Your task to perform on an android device: What's the weather going to be this weekend? Image 0: 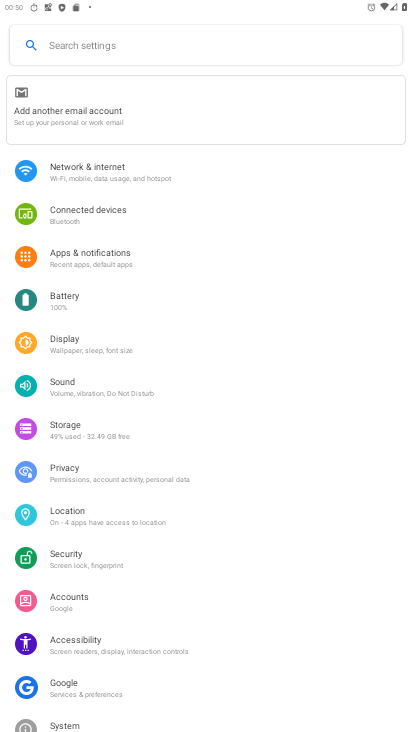
Step 0: drag from (284, 319) to (322, 510)
Your task to perform on an android device: What's the weather going to be this weekend? Image 1: 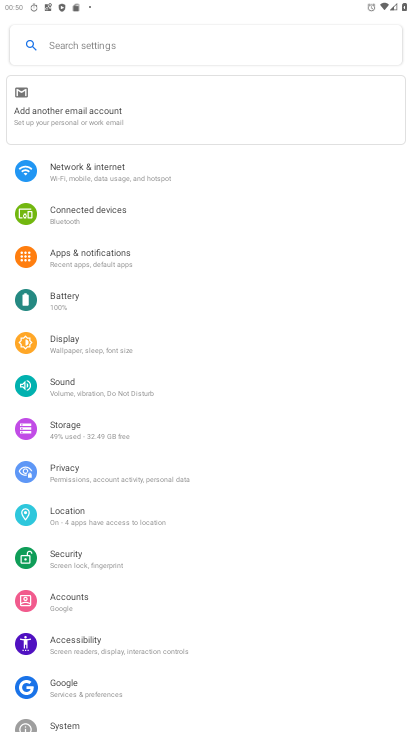
Step 1: press home button
Your task to perform on an android device: What's the weather going to be this weekend? Image 2: 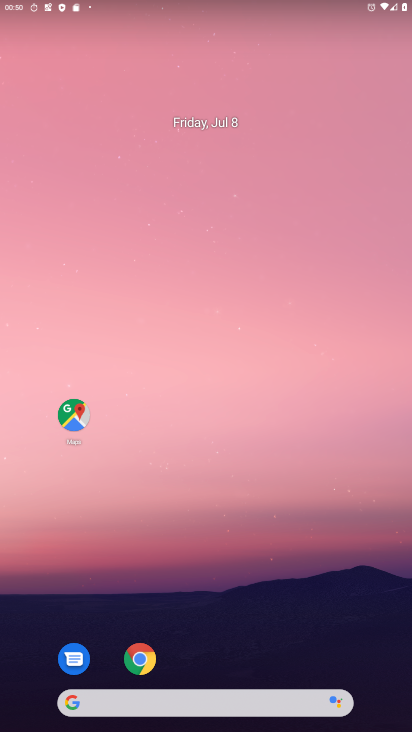
Step 2: click (163, 699)
Your task to perform on an android device: What's the weather going to be this weekend? Image 3: 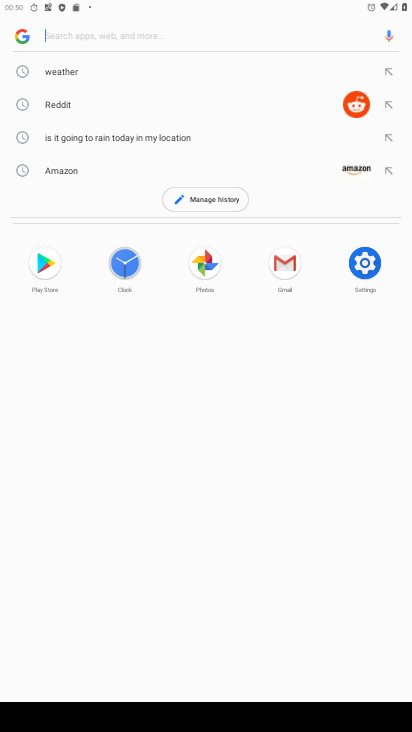
Step 3: click (65, 81)
Your task to perform on an android device: What's the weather going to be this weekend? Image 4: 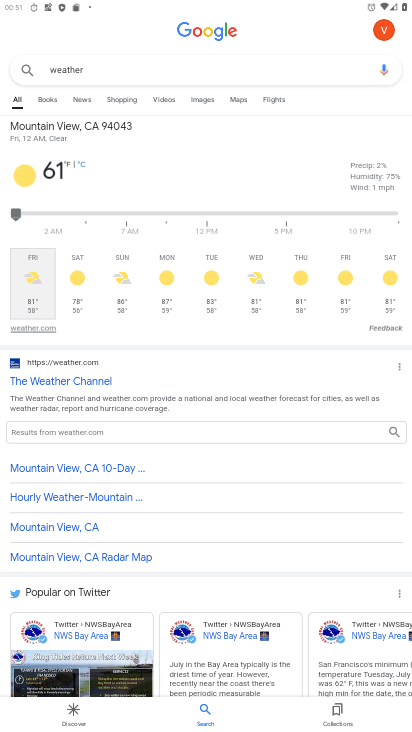
Step 4: click (389, 282)
Your task to perform on an android device: What's the weather going to be this weekend? Image 5: 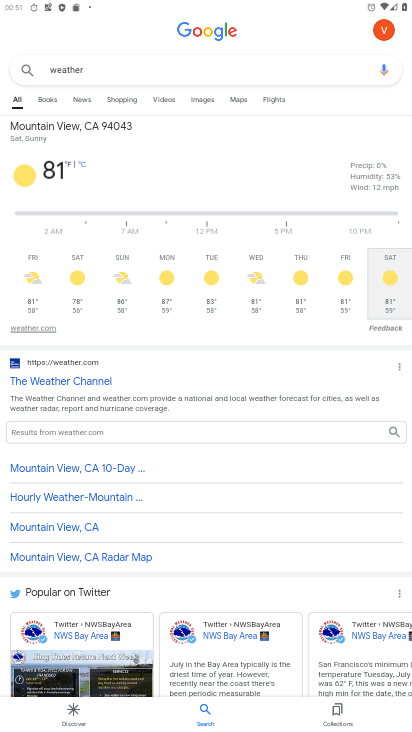
Step 5: task complete